Your task to perform on an android device: What's the weather today? Image 0: 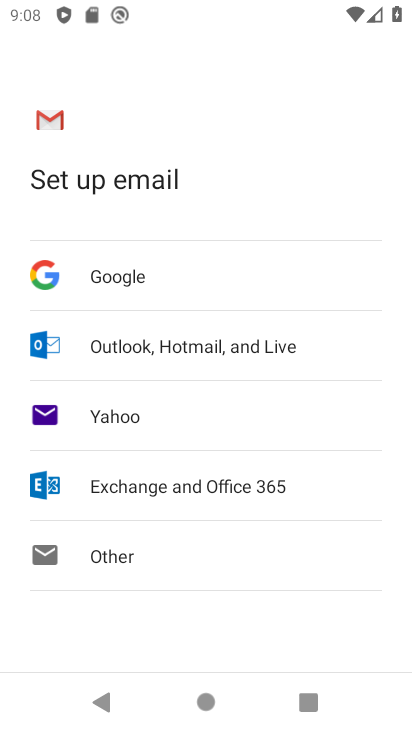
Step 0: press home button
Your task to perform on an android device: What's the weather today? Image 1: 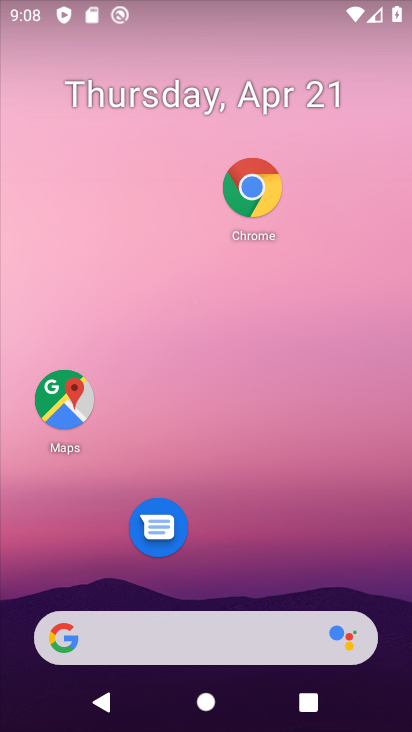
Step 1: drag from (249, 560) to (278, 196)
Your task to perform on an android device: What's the weather today? Image 2: 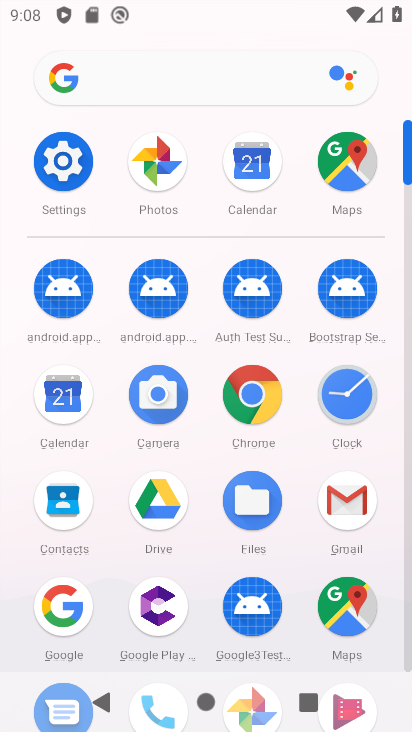
Step 2: click (76, 599)
Your task to perform on an android device: What's the weather today? Image 3: 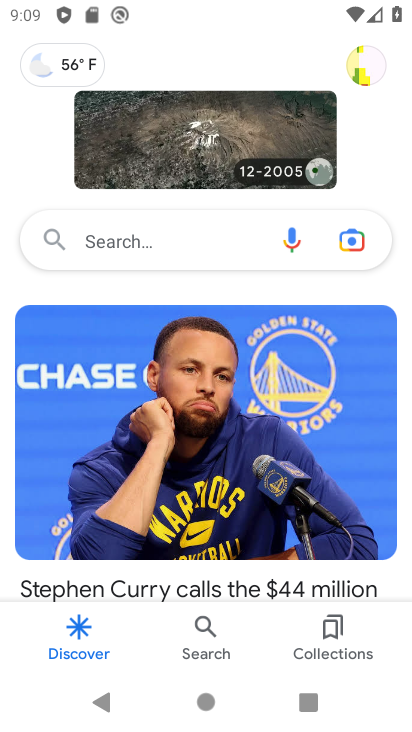
Step 3: click (161, 272)
Your task to perform on an android device: What's the weather today? Image 4: 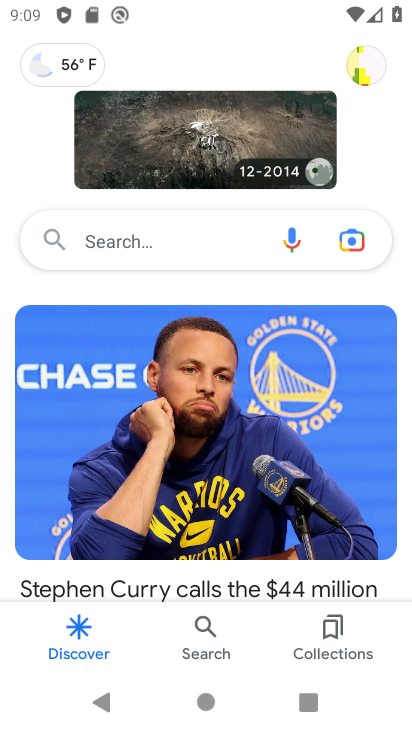
Step 4: click (157, 260)
Your task to perform on an android device: What's the weather today? Image 5: 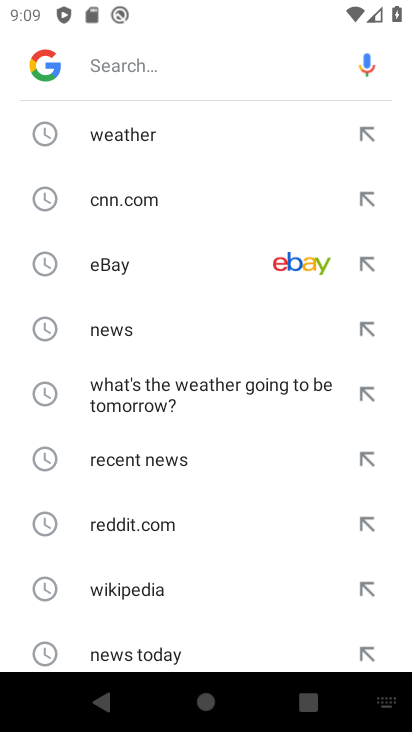
Step 5: drag from (159, 243) to (174, 149)
Your task to perform on an android device: What's the weather today? Image 6: 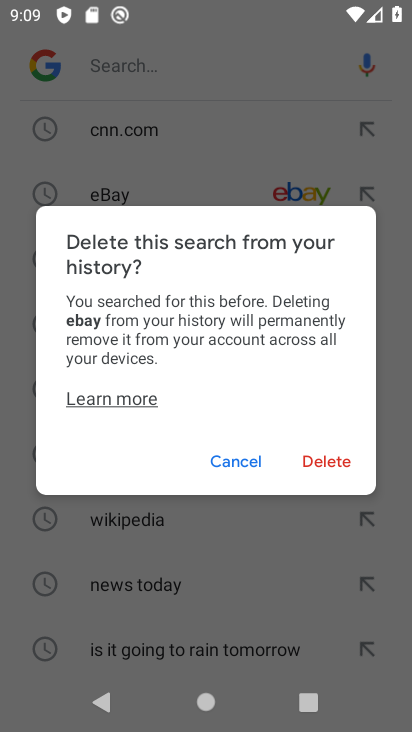
Step 6: click (241, 461)
Your task to perform on an android device: What's the weather today? Image 7: 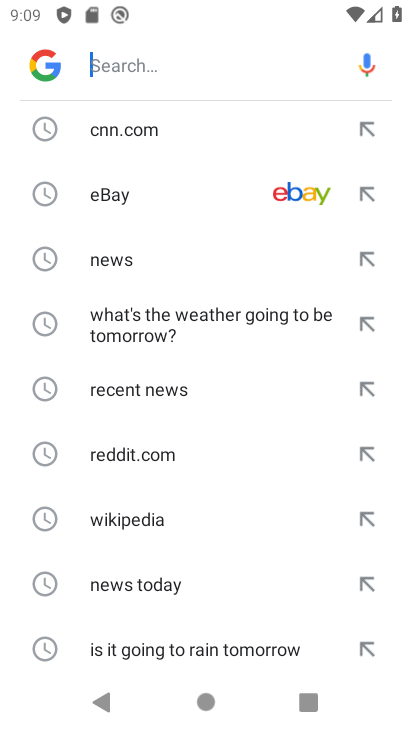
Step 7: drag from (153, 325) to (156, 599)
Your task to perform on an android device: What's the weather today? Image 8: 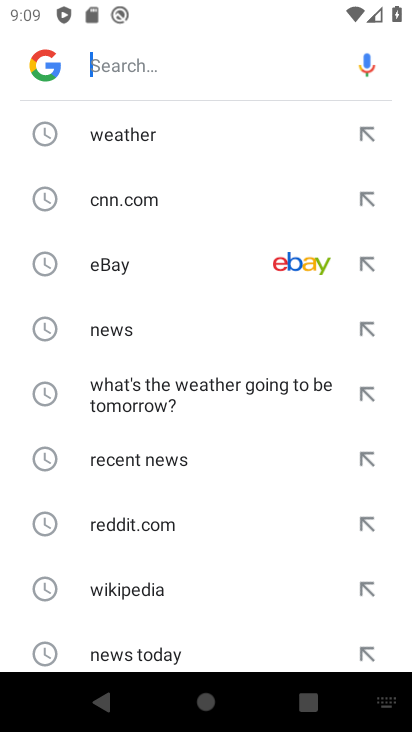
Step 8: click (228, 124)
Your task to perform on an android device: What's the weather today? Image 9: 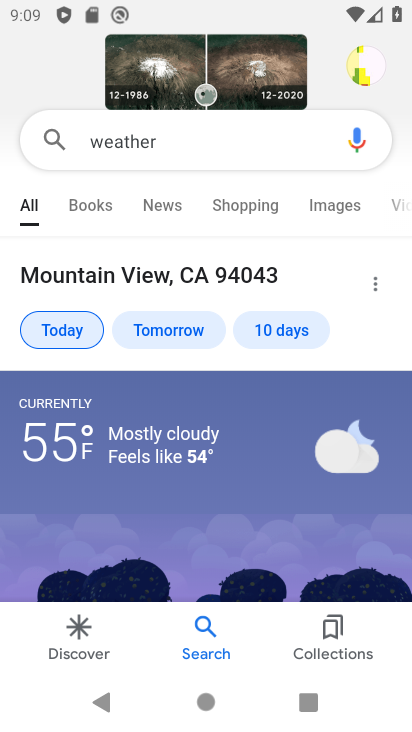
Step 9: task complete